Your task to perform on an android device: Go to internet settings Image 0: 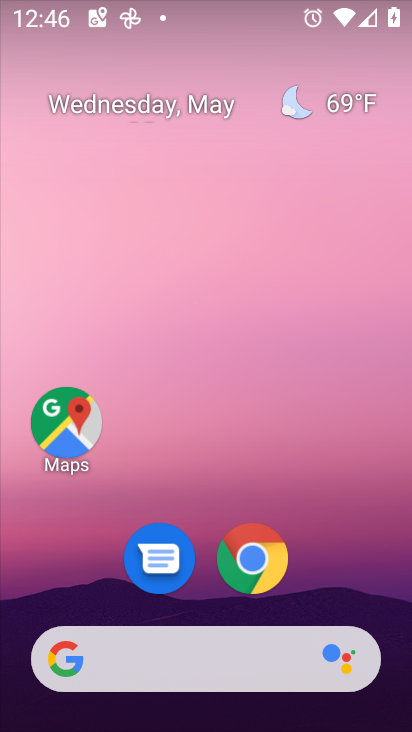
Step 0: drag from (397, 632) to (280, 23)
Your task to perform on an android device: Go to internet settings Image 1: 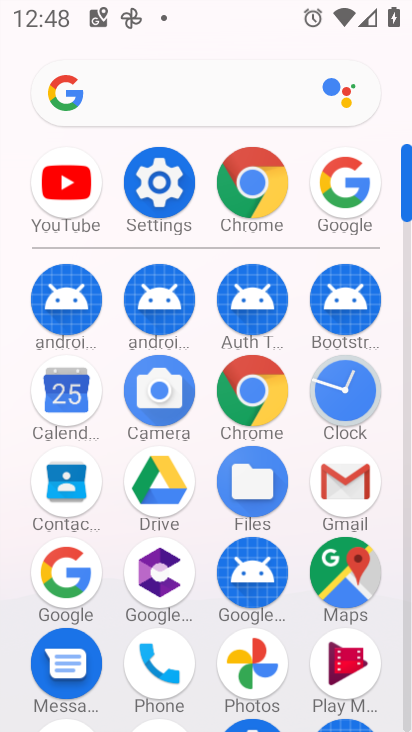
Step 1: click (151, 182)
Your task to perform on an android device: Go to internet settings Image 2: 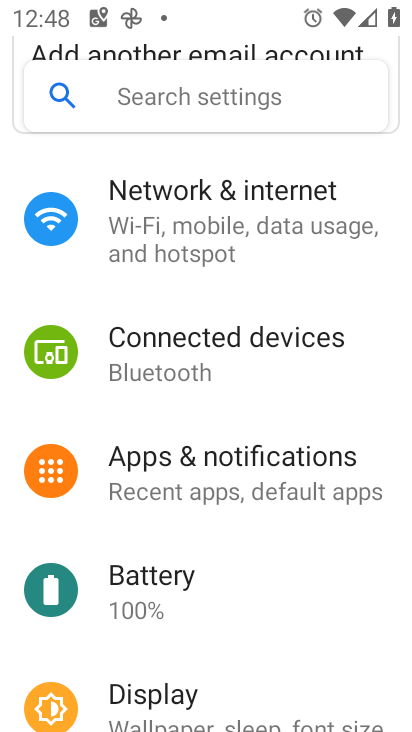
Step 2: click (172, 185)
Your task to perform on an android device: Go to internet settings Image 3: 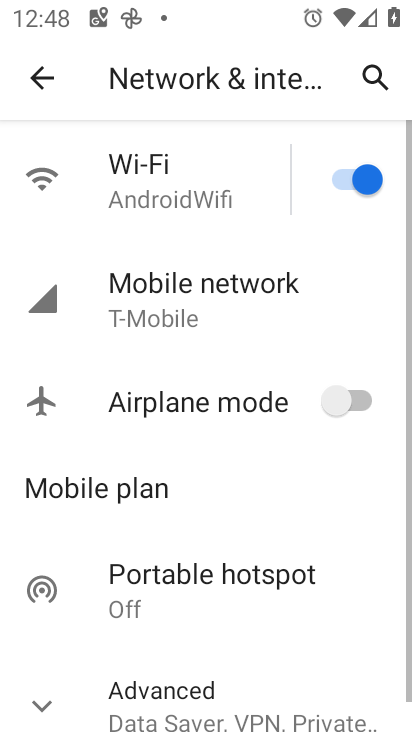
Step 3: task complete